Your task to perform on an android device: move an email to a new category in the gmail app Image 0: 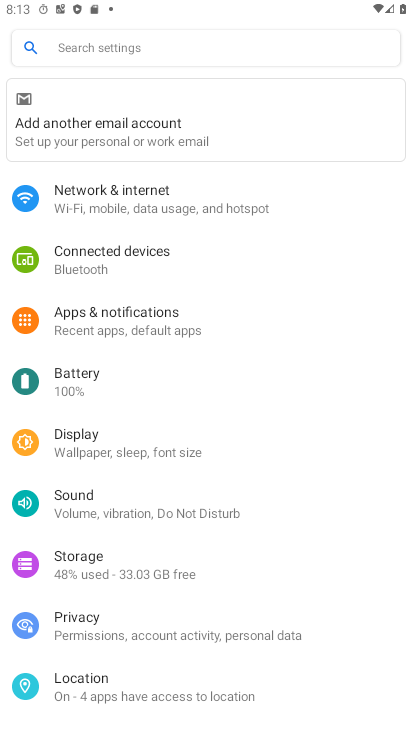
Step 0: press home button
Your task to perform on an android device: move an email to a new category in the gmail app Image 1: 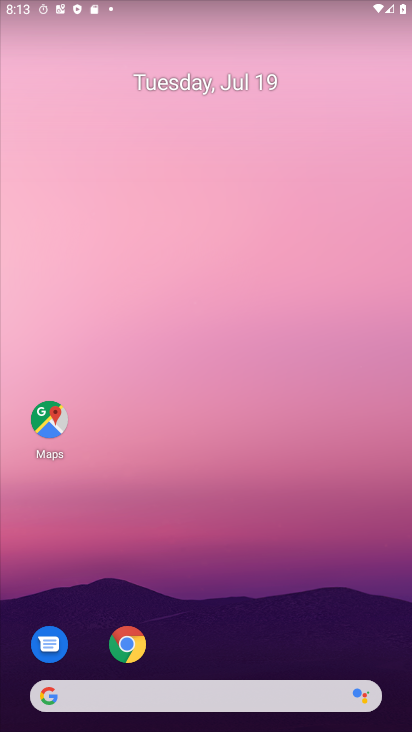
Step 1: drag from (2, 700) to (246, 229)
Your task to perform on an android device: move an email to a new category in the gmail app Image 2: 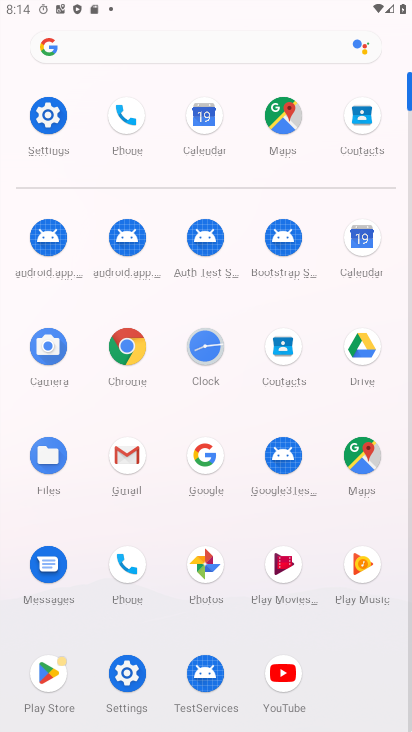
Step 2: click (114, 462)
Your task to perform on an android device: move an email to a new category in the gmail app Image 3: 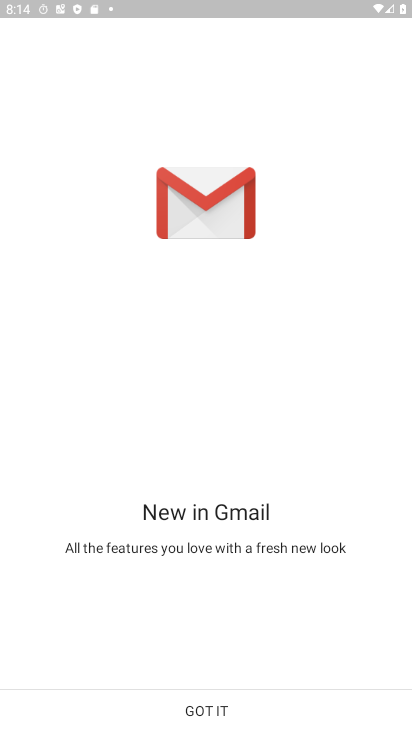
Step 3: click (212, 701)
Your task to perform on an android device: move an email to a new category in the gmail app Image 4: 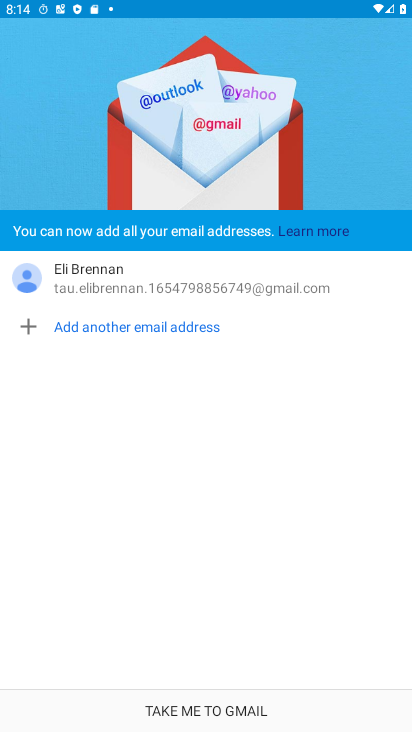
Step 4: click (202, 710)
Your task to perform on an android device: move an email to a new category in the gmail app Image 5: 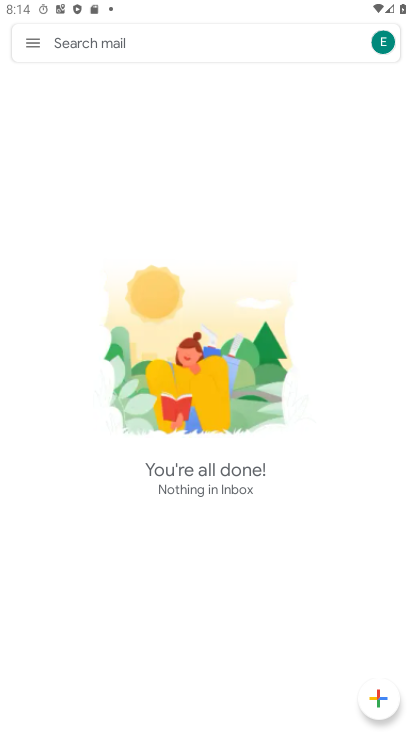
Step 5: click (44, 45)
Your task to perform on an android device: move an email to a new category in the gmail app Image 6: 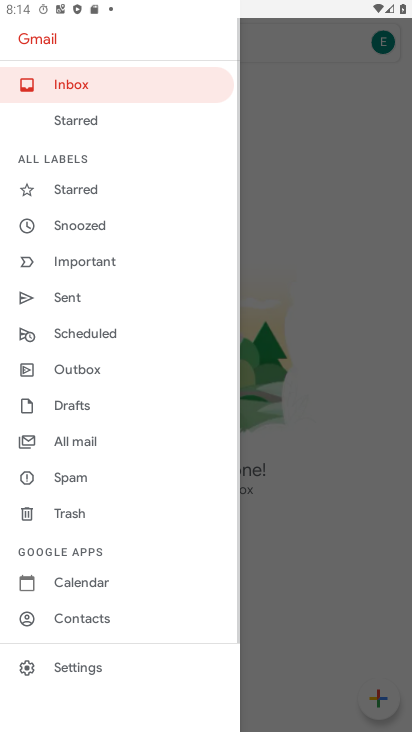
Step 6: click (98, 87)
Your task to perform on an android device: move an email to a new category in the gmail app Image 7: 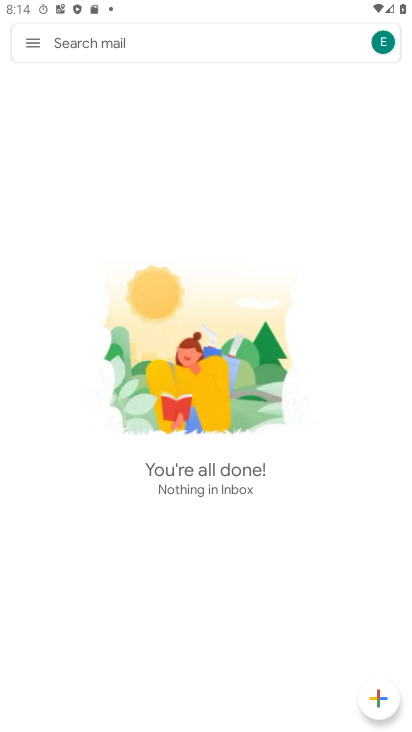
Step 7: task complete